Your task to perform on an android device: see creations saved in the google photos Image 0: 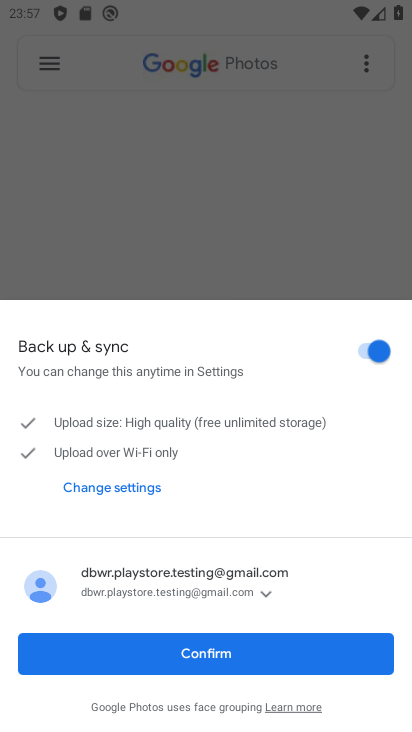
Step 0: press home button
Your task to perform on an android device: see creations saved in the google photos Image 1: 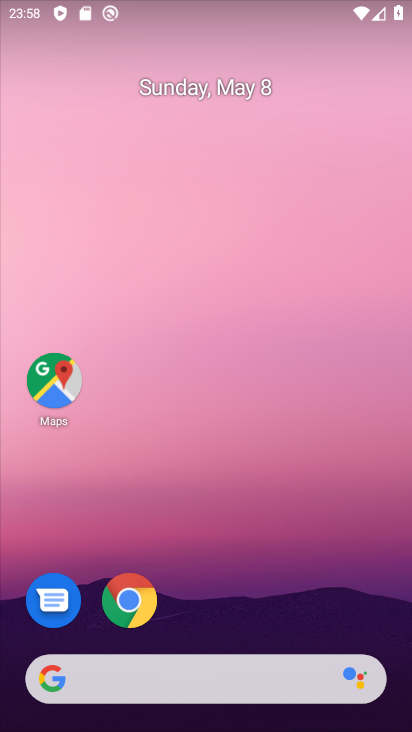
Step 1: drag from (232, 616) to (189, 87)
Your task to perform on an android device: see creations saved in the google photos Image 2: 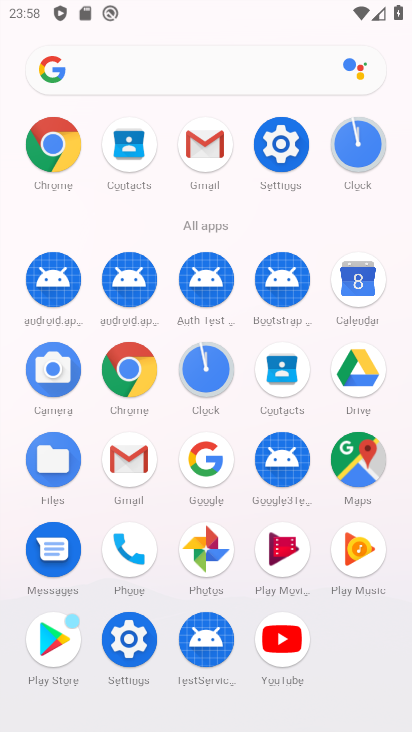
Step 2: click (201, 547)
Your task to perform on an android device: see creations saved in the google photos Image 3: 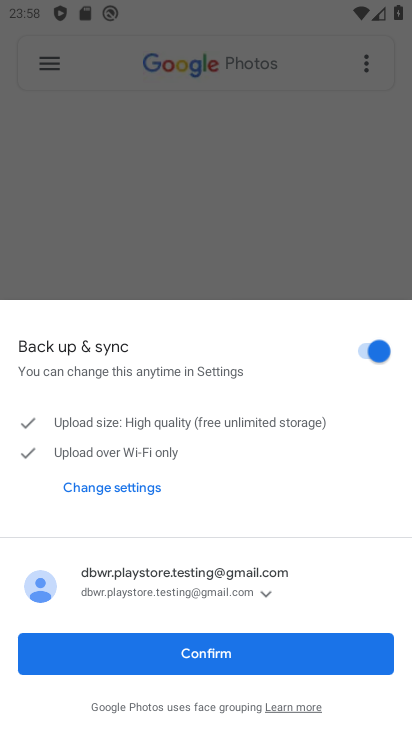
Step 3: click (228, 650)
Your task to perform on an android device: see creations saved in the google photos Image 4: 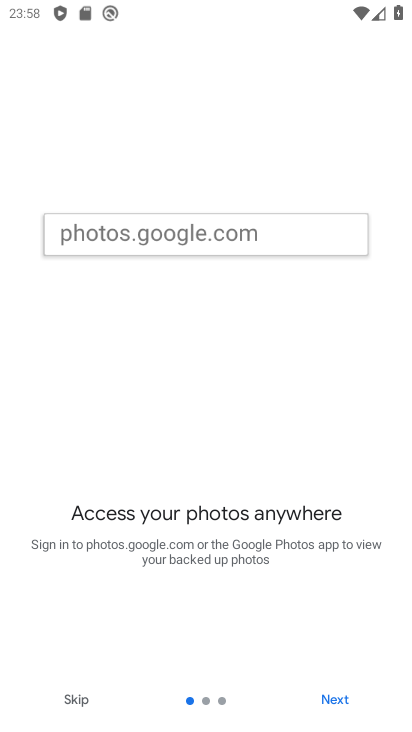
Step 4: click (78, 698)
Your task to perform on an android device: see creations saved in the google photos Image 5: 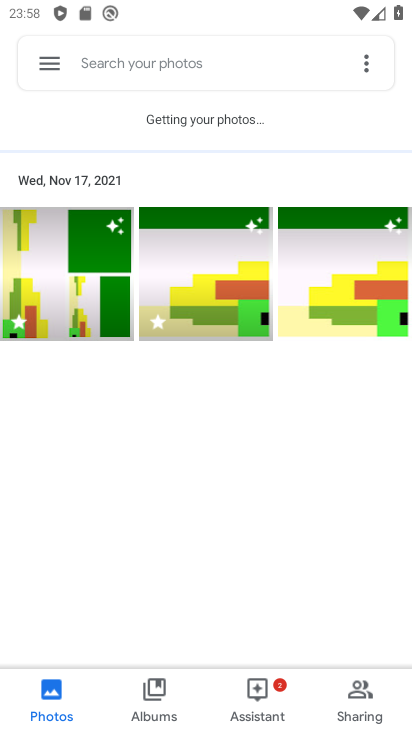
Step 5: click (171, 54)
Your task to perform on an android device: see creations saved in the google photos Image 6: 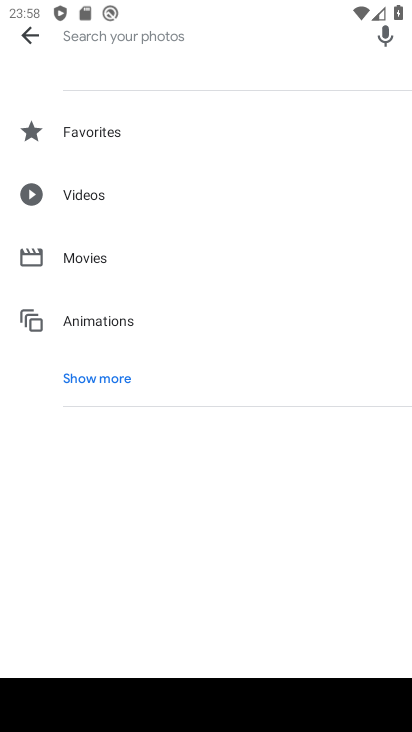
Step 6: click (111, 373)
Your task to perform on an android device: see creations saved in the google photos Image 7: 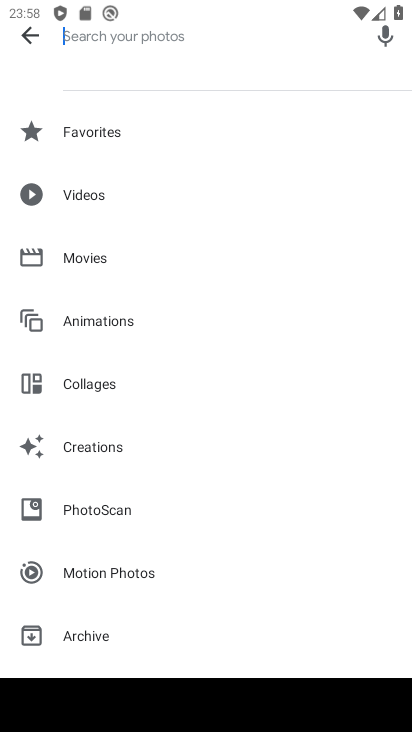
Step 7: click (115, 450)
Your task to perform on an android device: see creations saved in the google photos Image 8: 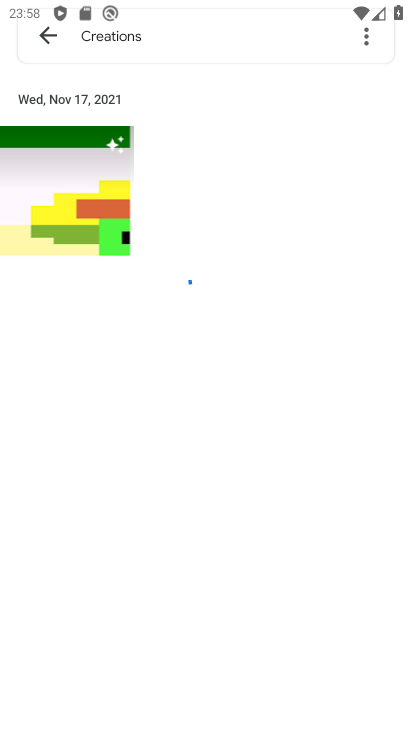
Step 8: task complete